Your task to perform on an android device: choose inbox layout in the gmail app Image 0: 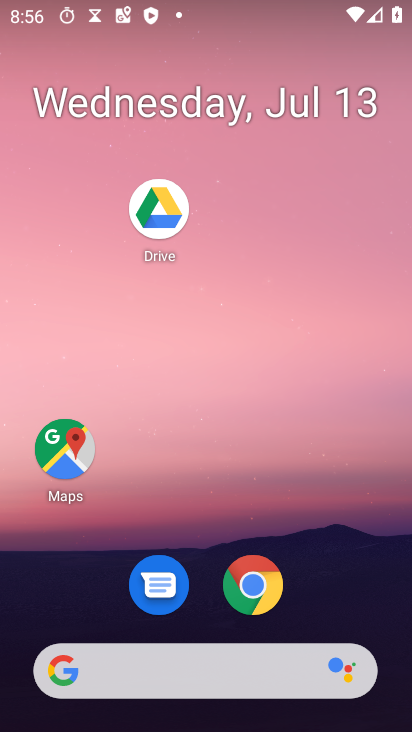
Step 0: press home button
Your task to perform on an android device: choose inbox layout in the gmail app Image 1: 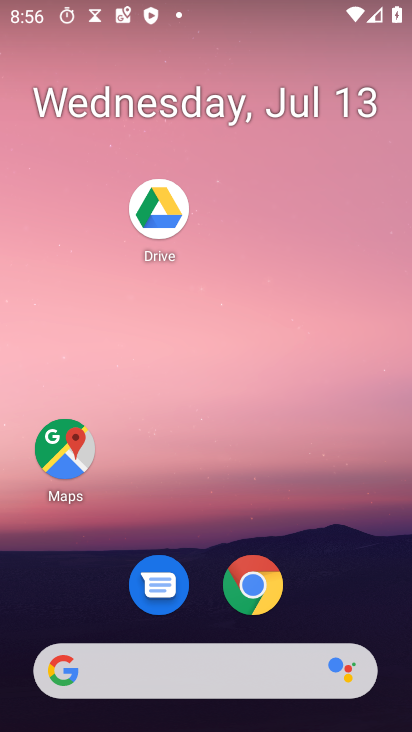
Step 1: drag from (259, 690) to (410, 234)
Your task to perform on an android device: choose inbox layout in the gmail app Image 2: 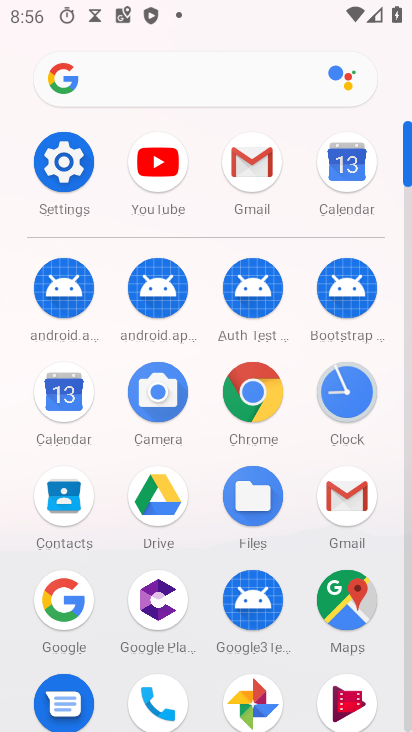
Step 2: click (256, 156)
Your task to perform on an android device: choose inbox layout in the gmail app Image 3: 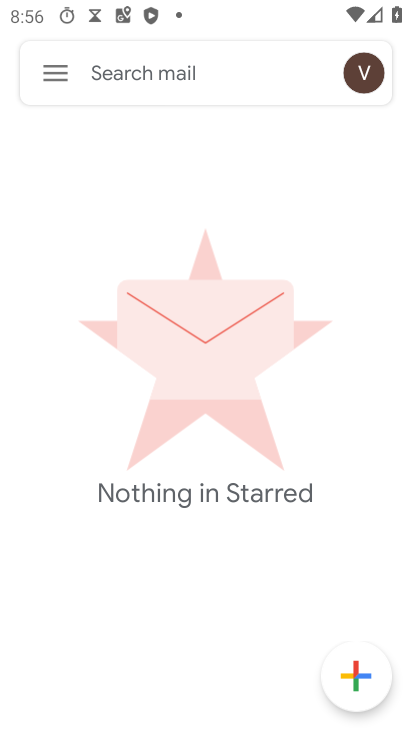
Step 3: click (63, 63)
Your task to perform on an android device: choose inbox layout in the gmail app Image 4: 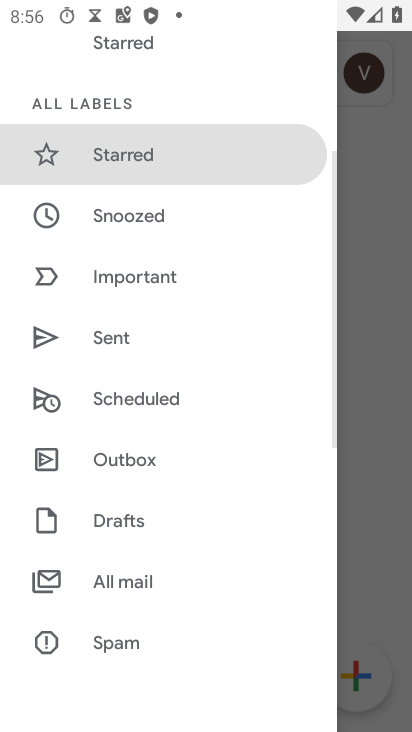
Step 4: drag from (172, 657) to (284, 109)
Your task to perform on an android device: choose inbox layout in the gmail app Image 5: 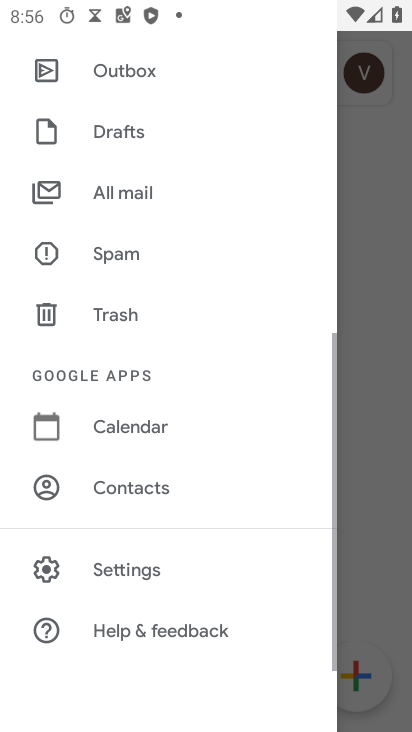
Step 5: click (146, 560)
Your task to perform on an android device: choose inbox layout in the gmail app Image 6: 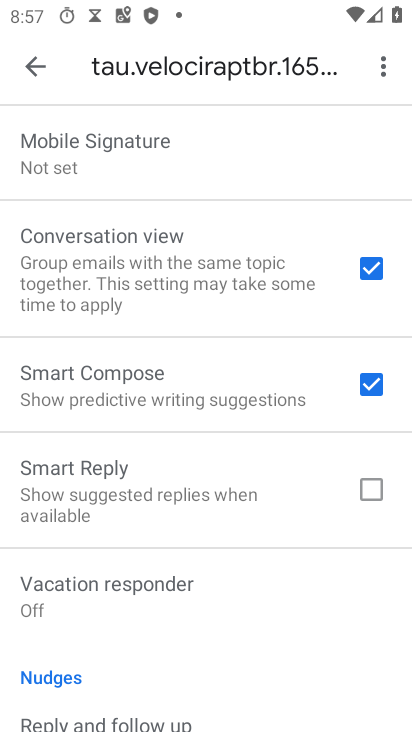
Step 6: drag from (325, 163) to (227, 557)
Your task to perform on an android device: choose inbox layout in the gmail app Image 7: 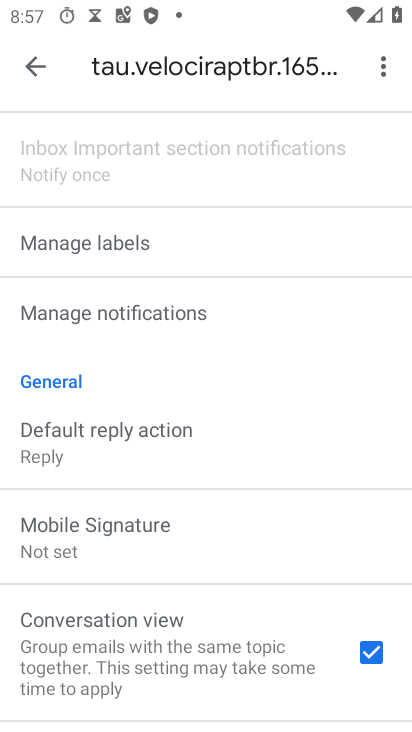
Step 7: drag from (321, 176) to (253, 565)
Your task to perform on an android device: choose inbox layout in the gmail app Image 8: 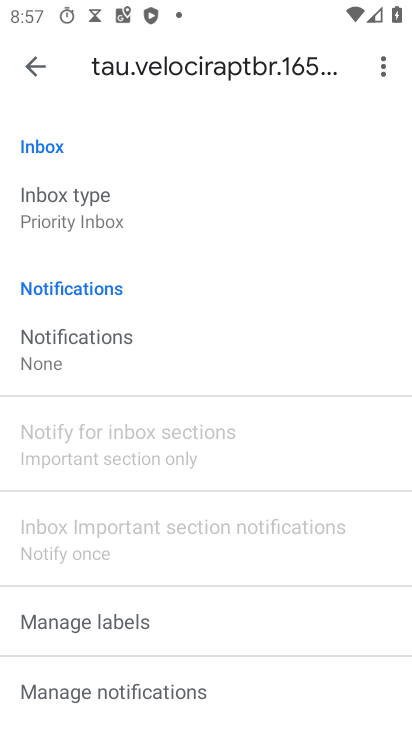
Step 8: click (106, 226)
Your task to perform on an android device: choose inbox layout in the gmail app Image 9: 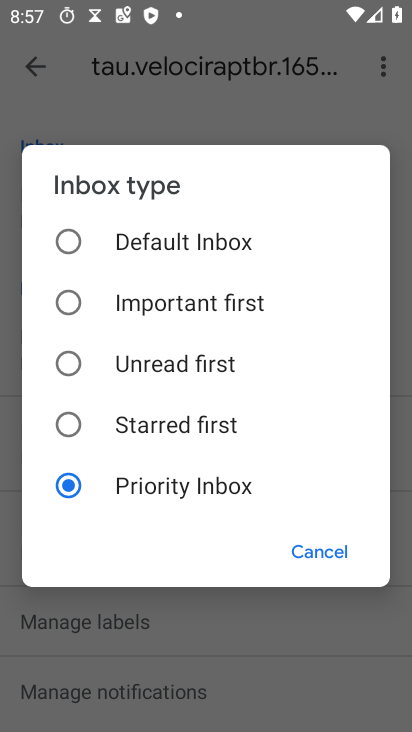
Step 9: click (60, 301)
Your task to perform on an android device: choose inbox layout in the gmail app Image 10: 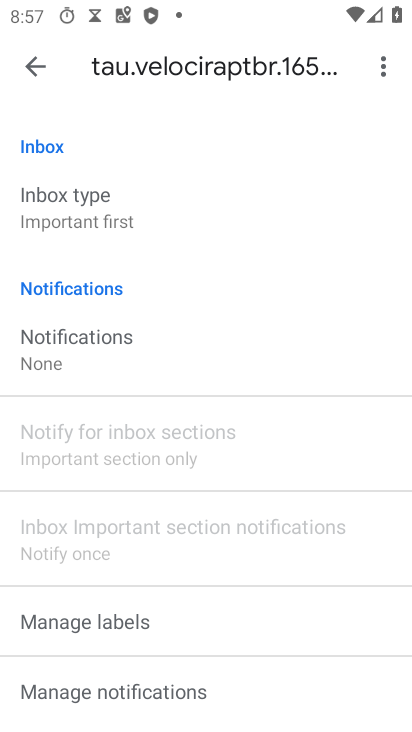
Step 10: task complete